Your task to perform on an android device: move a message to another label in the gmail app Image 0: 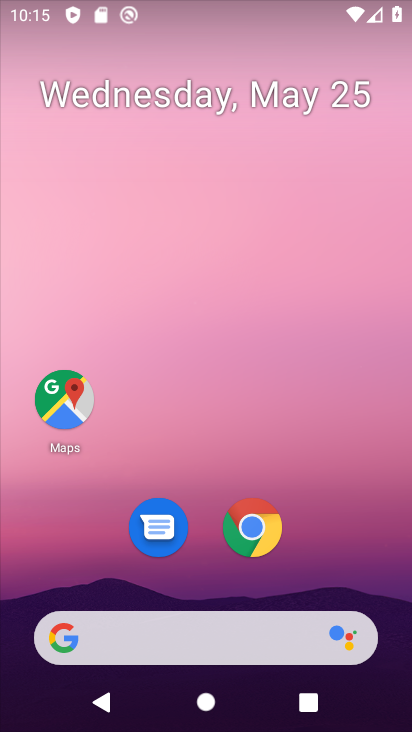
Step 0: drag from (379, 583) to (277, 83)
Your task to perform on an android device: move a message to another label in the gmail app Image 1: 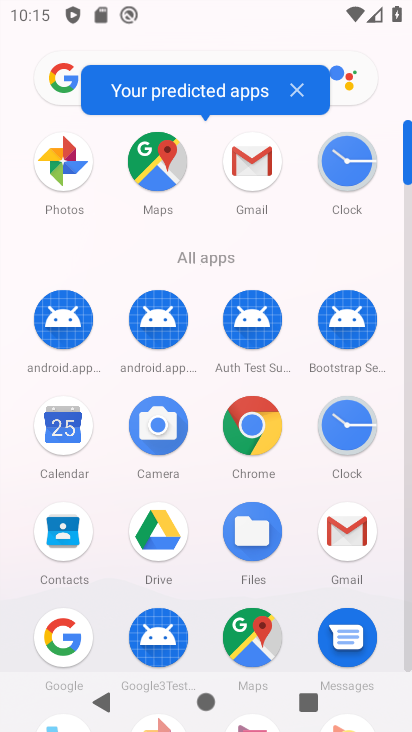
Step 1: click (264, 152)
Your task to perform on an android device: move a message to another label in the gmail app Image 2: 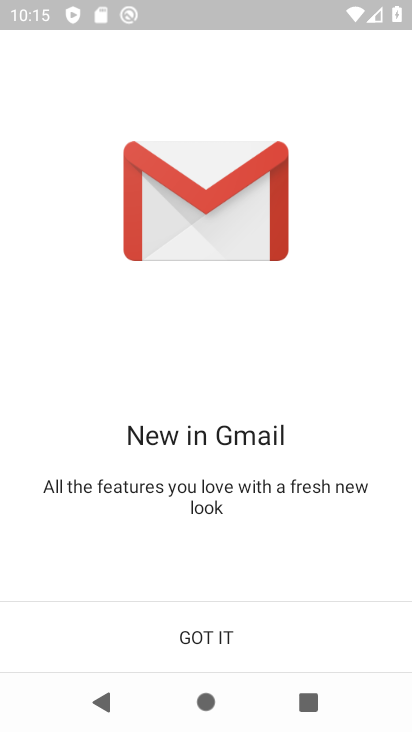
Step 2: click (207, 642)
Your task to perform on an android device: move a message to another label in the gmail app Image 3: 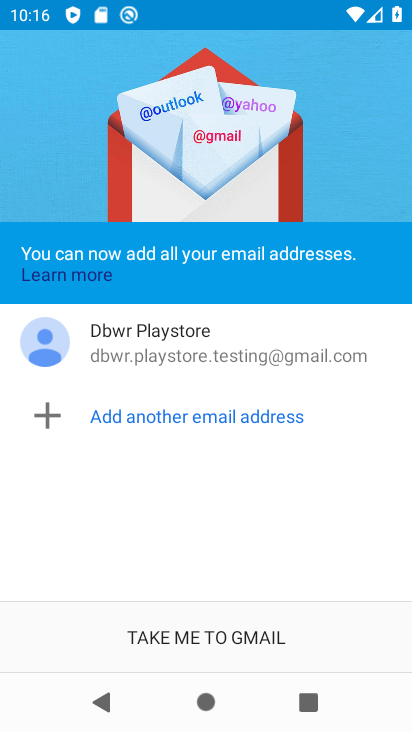
Step 3: click (207, 642)
Your task to perform on an android device: move a message to another label in the gmail app Image 4: 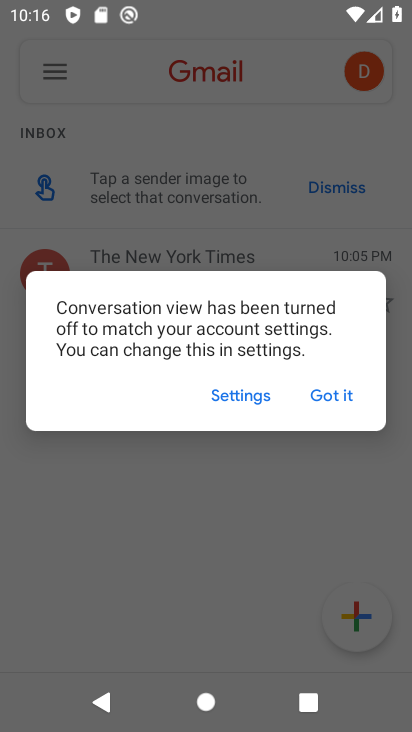
Step 4: click (342, 385)
Your task to perform on an android device: move a message to another label in the gmail app Image 5: 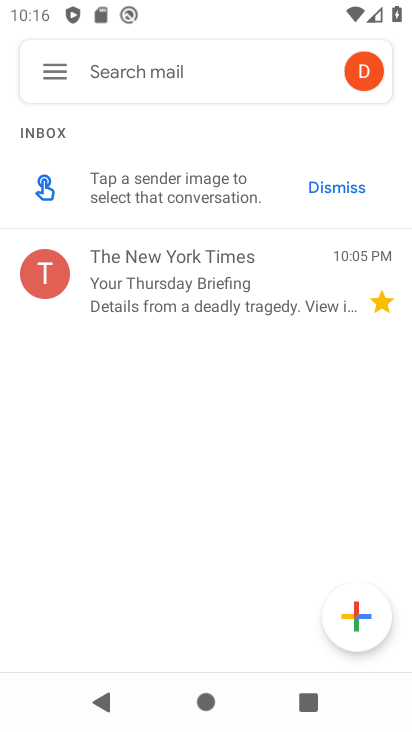
Step 5: click (267, 299)
Your task to perform on an android device: move a message to another label in the gmail app Image 6: 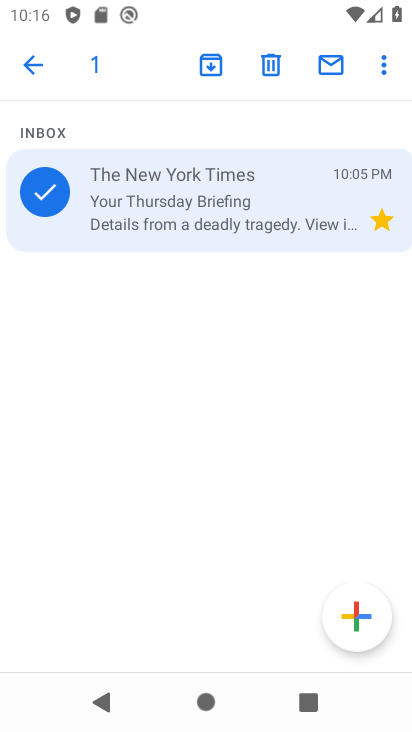
Step 6: click (378, 79)
Your task to perform on an android device: move a message to another label in the gmail app Image 7: 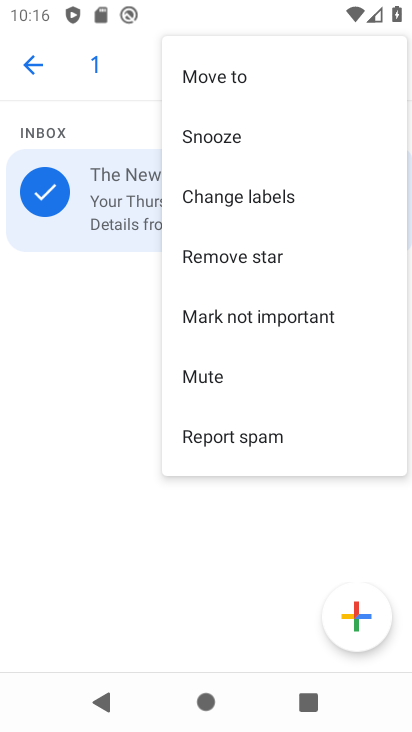
Step 7: click (242, 78)
Your task to perform on an android device: move a message to another label in the gmail app Image 8: 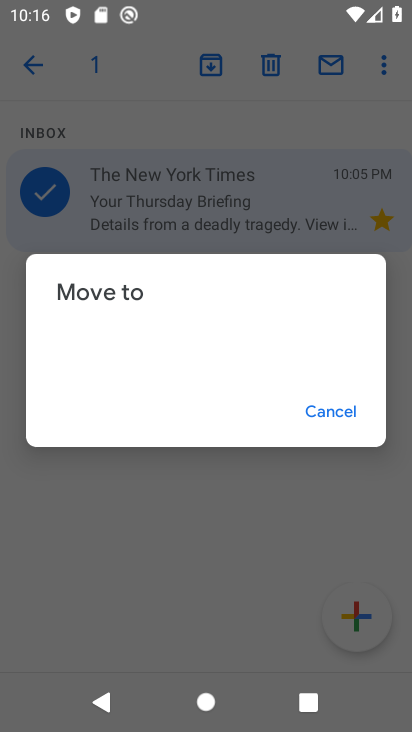
Step 8: click (224, 392)
Your task to perform on an android device: move a message to another label in the gmail app Image 9: 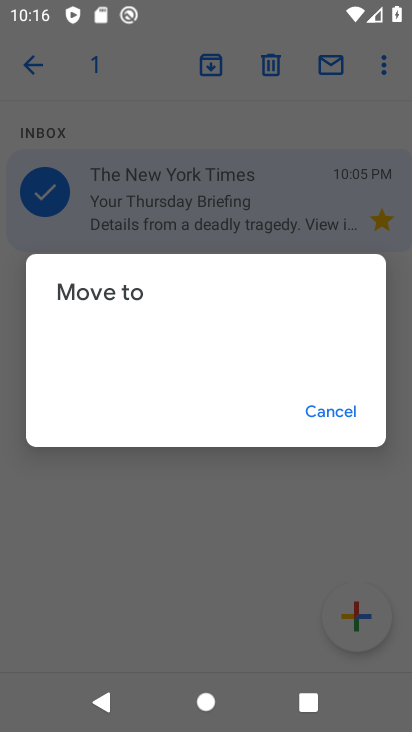
Step 9: click (317, 358)
Your task to perform on an android device: move a message to another label in the gmail app Image 10: 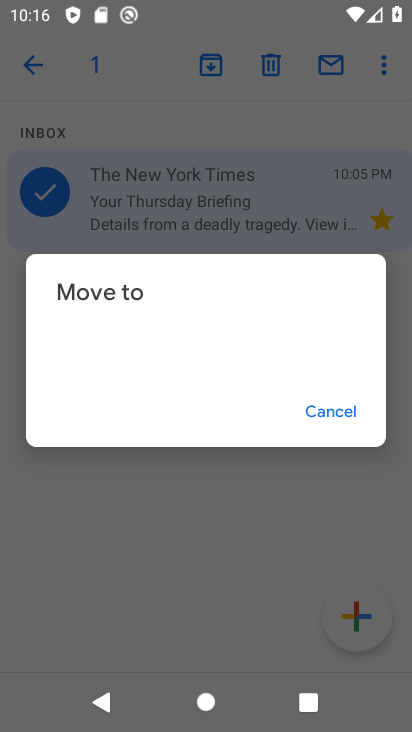
Step 10: task complete